Your task to perform on an android device: open a new tab in the chrome app Image 0: 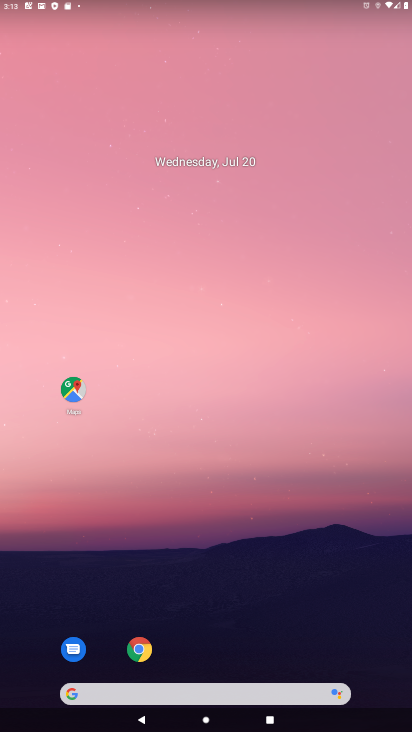
Step 0: click (139, 650)
Your task to perform on an android device: open a new tab in the chrome app Image 1: 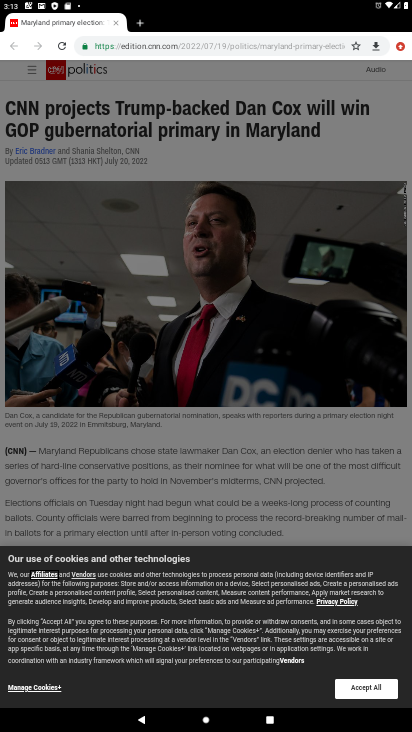
Step 1: click (399, 46)
Your task to perform on an android device: open a new tab in the chrome app Image 2: 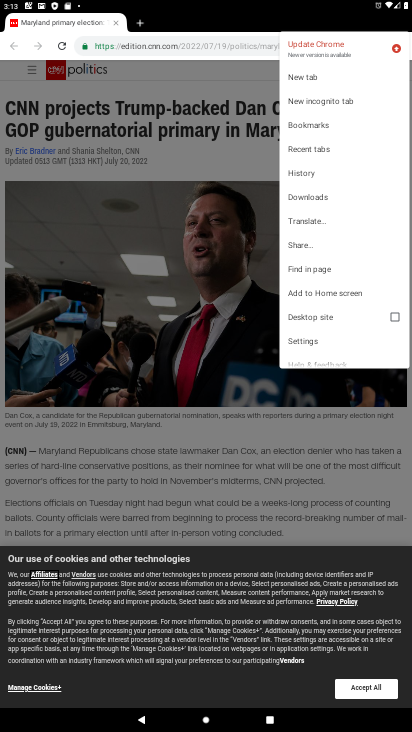
Step 2: click (311, 76)
Your task to perform on an android device: open a new tab in the chrome app Image 3: 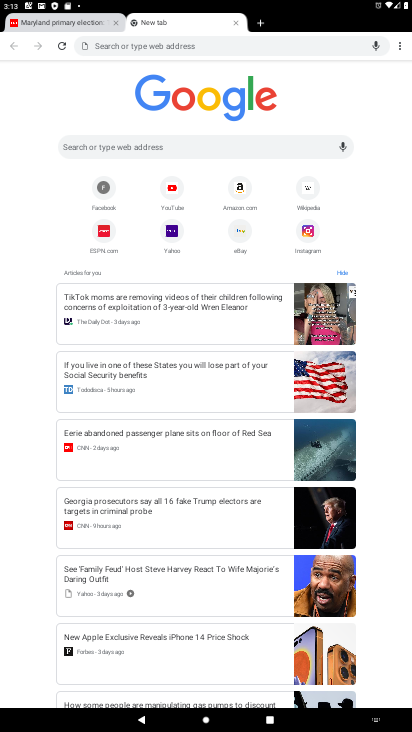
Step 3: task complete